Your task to perform on an android device: Check the news Image 0: 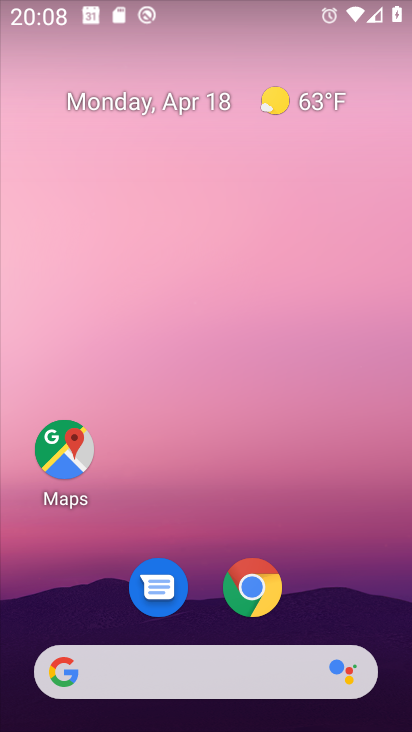
Step 0: click (266, 595)
Your task to perform on an android device: Check the news Image 1: 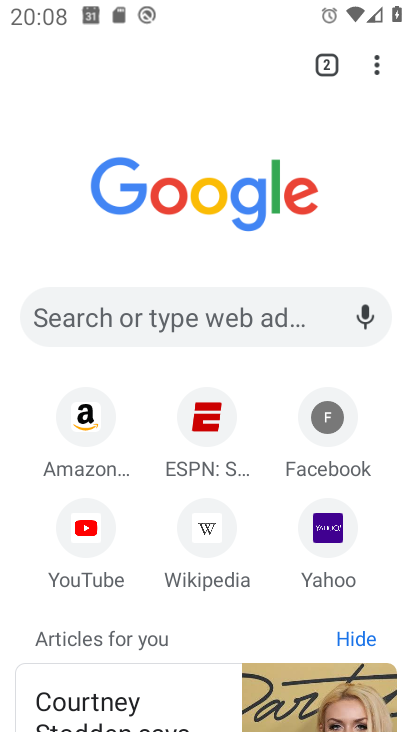
Step 1: task complete